Your task to perform on an android device: check google app version Image 0: 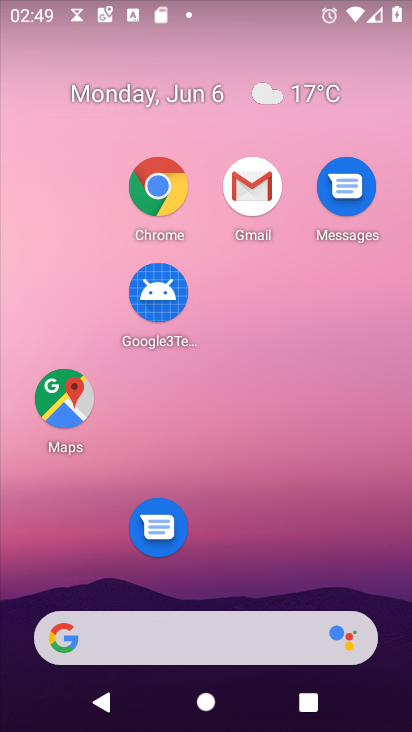
Step 0: drag from (346, 544) to (265, 53)
Your task to perform on an android device: check google app version Image 1: 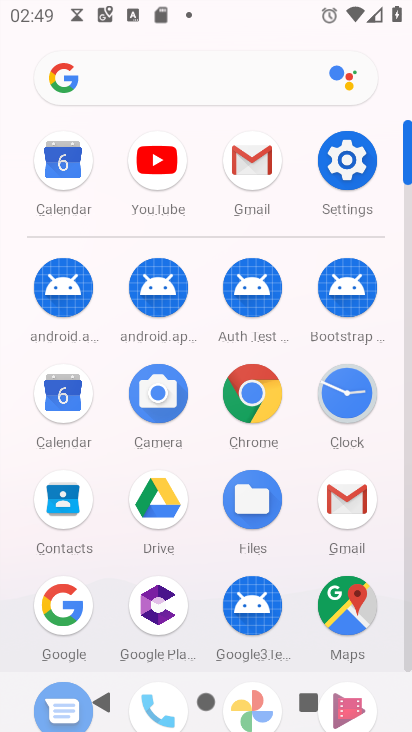
Step 1: click (245, 65)
Your task to perform on an android device: check google app version Image 2: 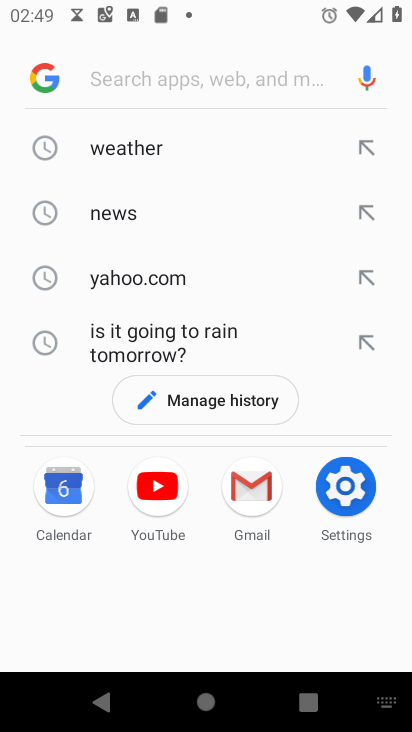
Step 2: click (53, 75)
Your task to perform on an android device: check google app version Image 3: 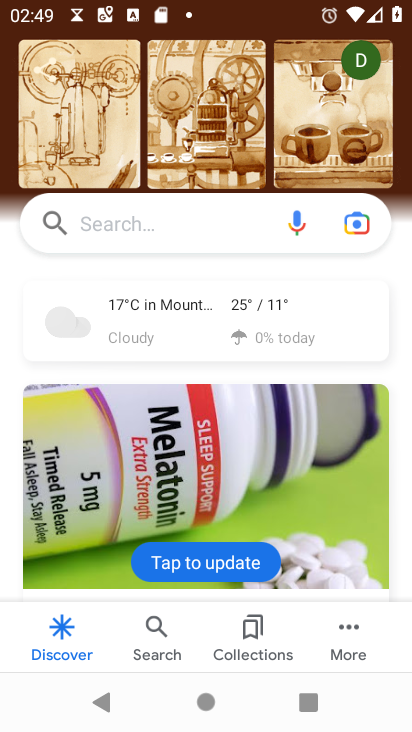
Step 3: click (351, 56)
Your task to perform on an android device: check google app version Image 4: 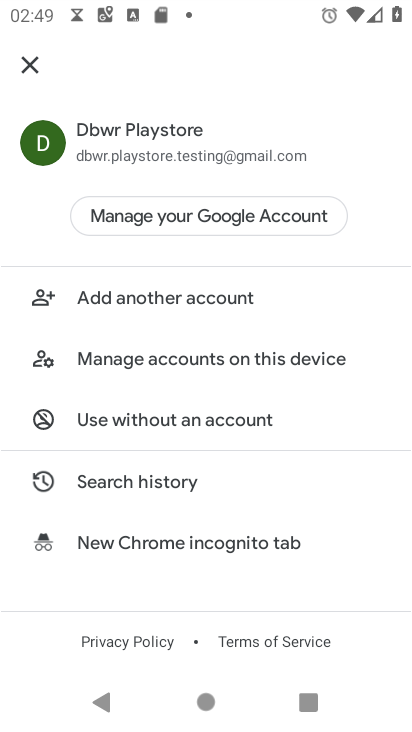
Step 4: drag from (354, 580) to (329, 324)
Your task to perform on an android device: check google app version Image 5: 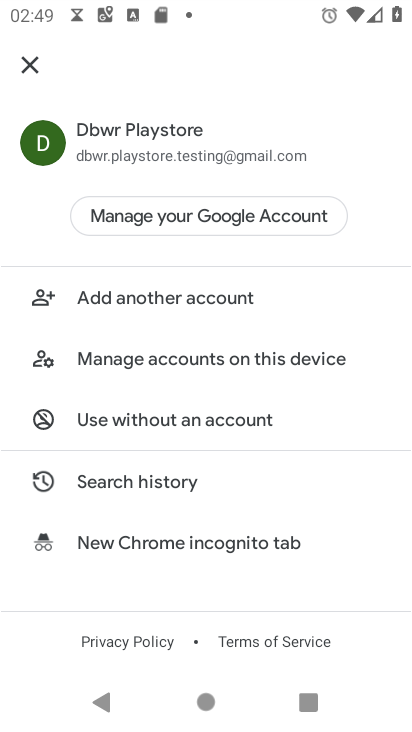
Step 5: drag from (337, 499) to (295, 160)
Your task to perform on an android device: check google app version Image 6: 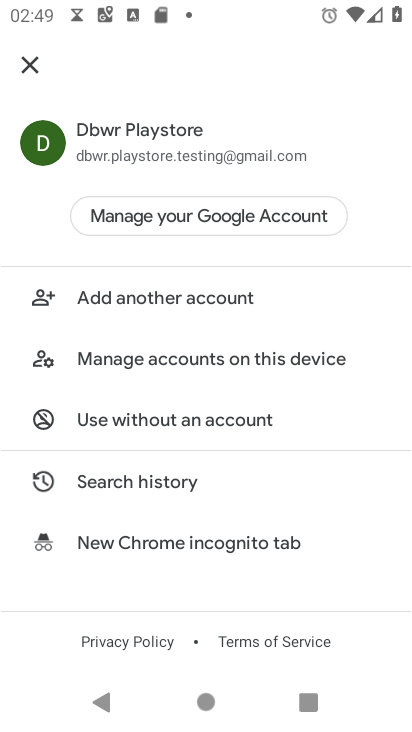
Step 6: click (32, 61)
Your task to perform on an android device: check google app version Image 7: 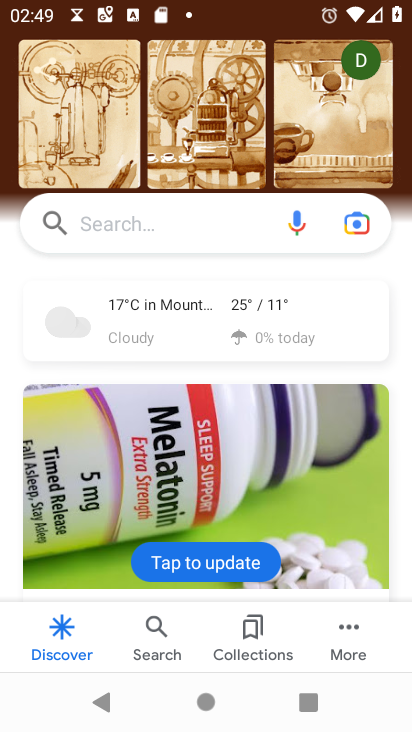
Step 7: click (341, 619)
Your task to perform on an android device: check google app version Image 8: 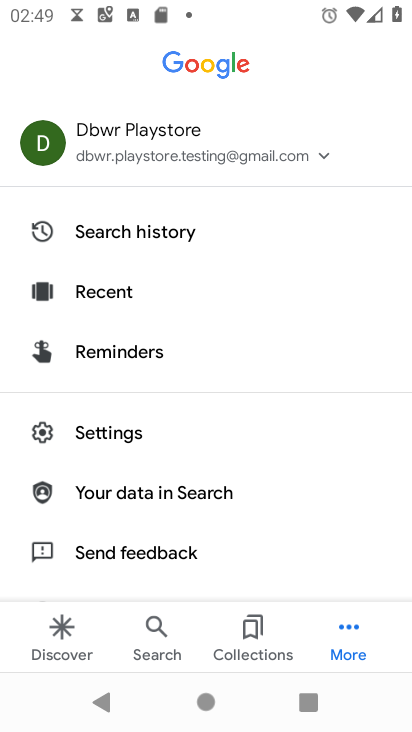
Step 8: click (95, 436)
Your task to perform on an android device: check google app version Image 9: 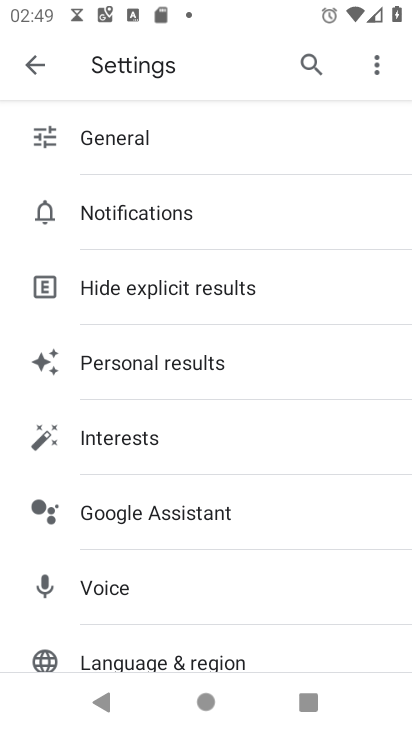
Step 9: drag from (388, 601) to (319, 167)
Your task to perform on an android device: check google app version Image 10: 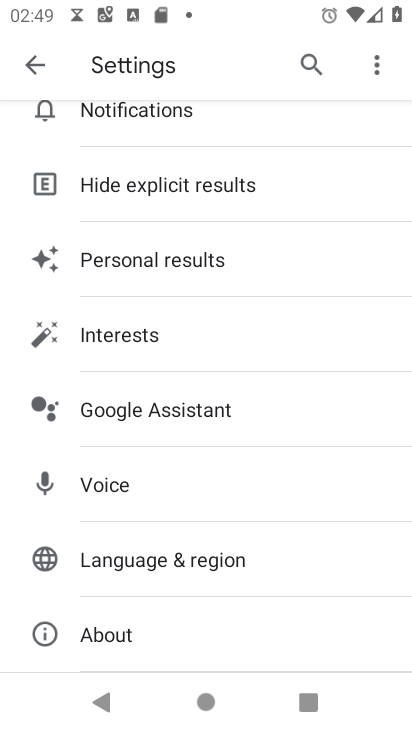
Step 10: click (111, 644)
Your task to perform on an android device: check google app version Image 11: 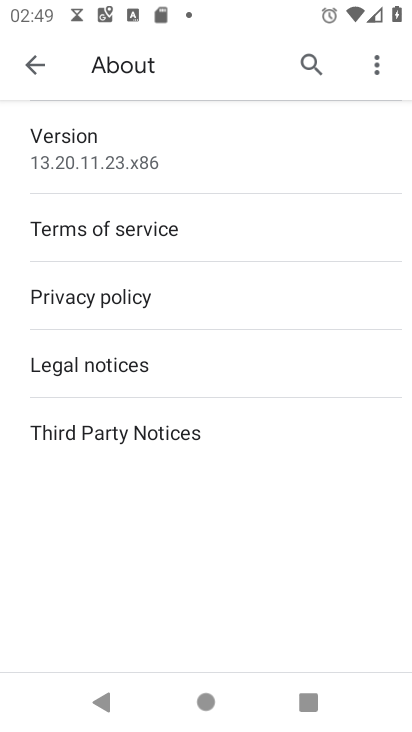
Step 11: click (229, 153)
Your task to perform on an android device: check google app version Image 12: 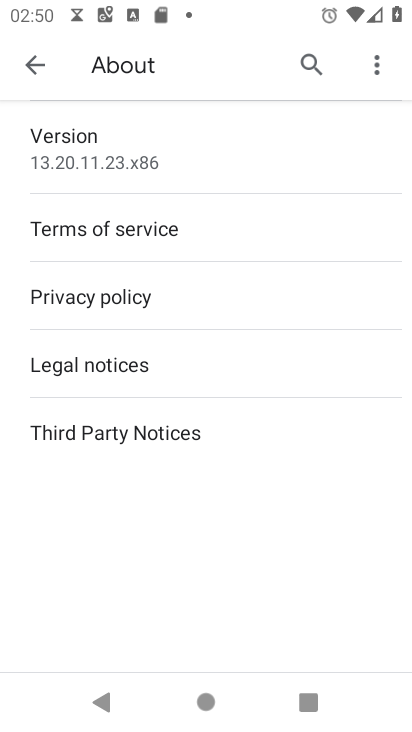
Step 12: task complete